Your task to perform on an android device: Empty the shopping cart on bestbuy.com. Add macbook pro 15 inch to the cart on bestbuy.com, then select checkout. Image 0: 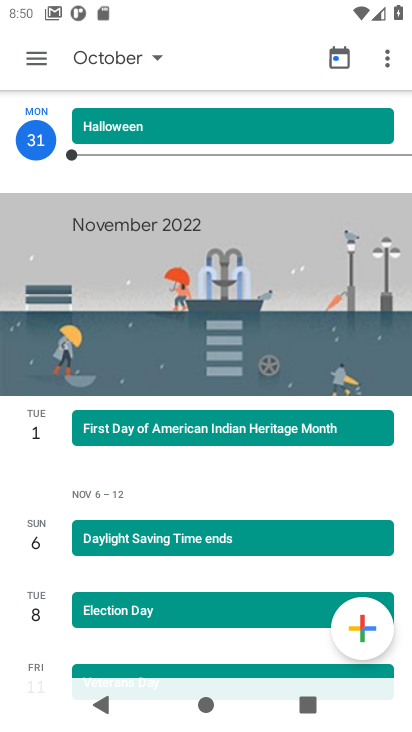
Step 0: press home button
Your task to perform on an android device: Empty the shopping cart on bestbuy.com. Add macbook pro 15 inch to the cart on bestbuy.com, then select checkout. Image 1: 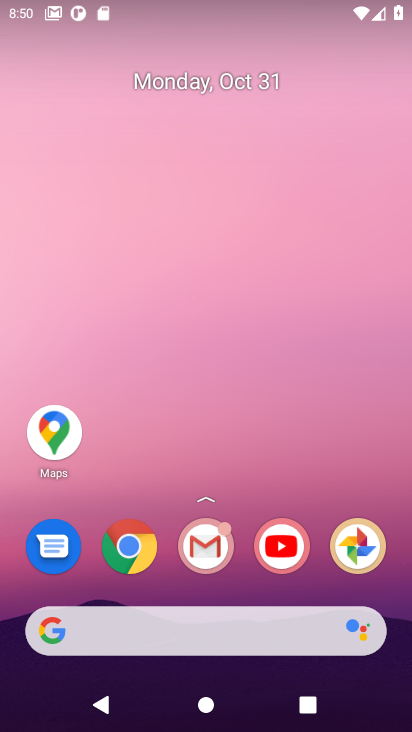
Step 1: drag from (167, 624) to (216, 70)
Your task to perform on an android device: Empty the shopping cart on bestbuy.com. Add macbook pro 15 inch to the cart on bestbuy.com, then select checkout. Image 2: 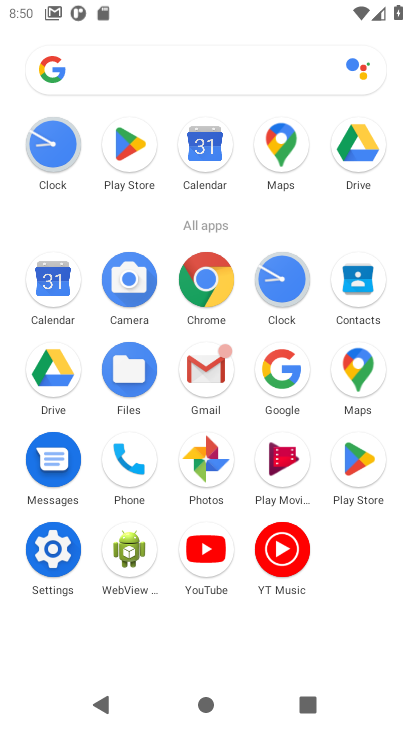
Step 2: click (221, 283)
Your task to perform on an android device: Empty the shopping cart on bestbuy.com. Add macbook pro 15 inch to the cart on bestbuy.com, then select checkout. Image 3: 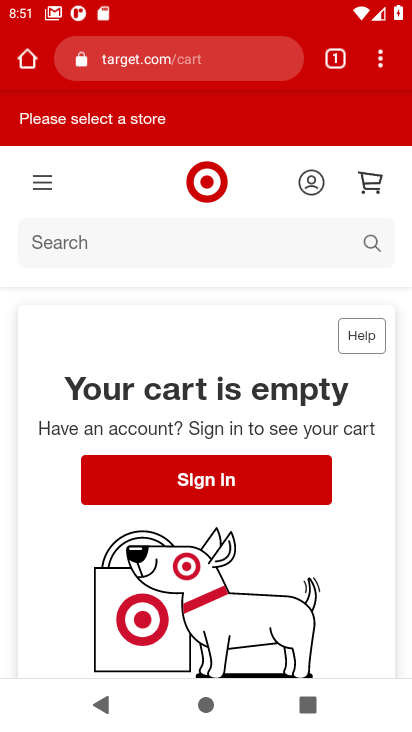
Step 3: click (158, 71)
Your task to perform on an android device: Empty the shopping cart on bestbuy.com. Add macbook pro 15 inch to the cart on bestbuy.com, then select checkout. Image 4: 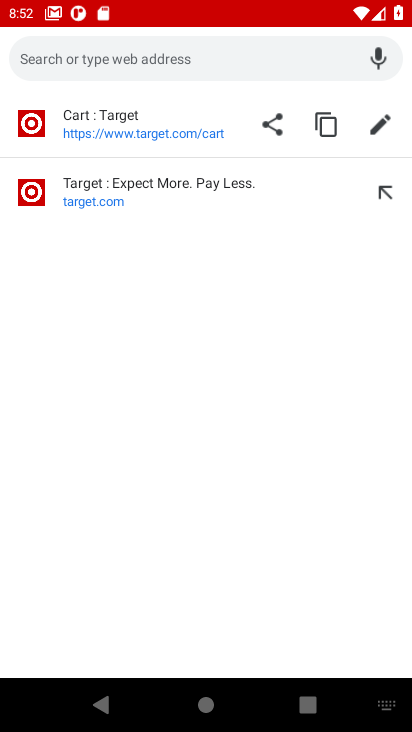
Step 4: type " bestbuy.com"
Your task to perform on an android device: Empty the shopping cart on bestbuy.com. Add macbook pro 15 inch to the cart on bestbuy.com, then select checkout. Image 5: 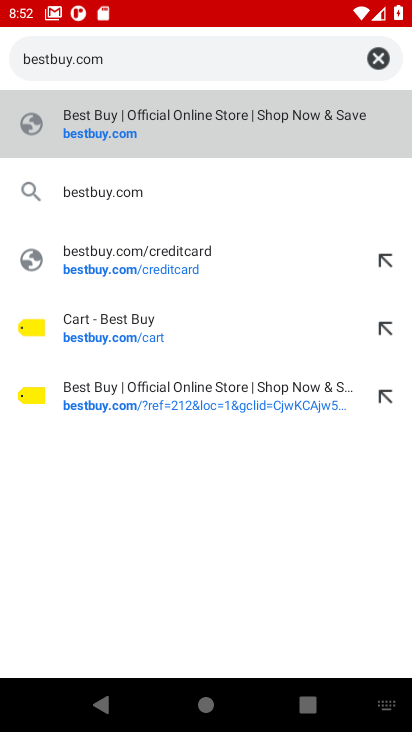
Step 5: press enter
Your task to perform on an android device: Empty the shopping cart on bestbuy.com. Add macbook pro 15 inch to the cart on bestbuy.com, then select checkout. Image 6: 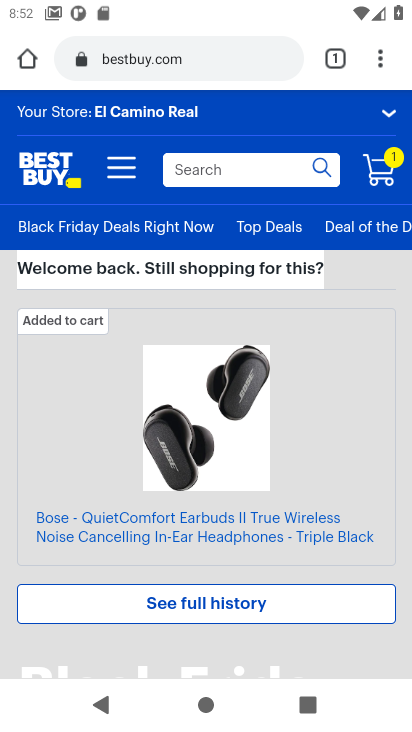
Step 6: click (387, 171)
Your task to perform on an android device: Empty the shopping cart on bestbuy.com. Add macbook pro 15 inch to the cart on bestbuy.com, then select checkout. Image 7: 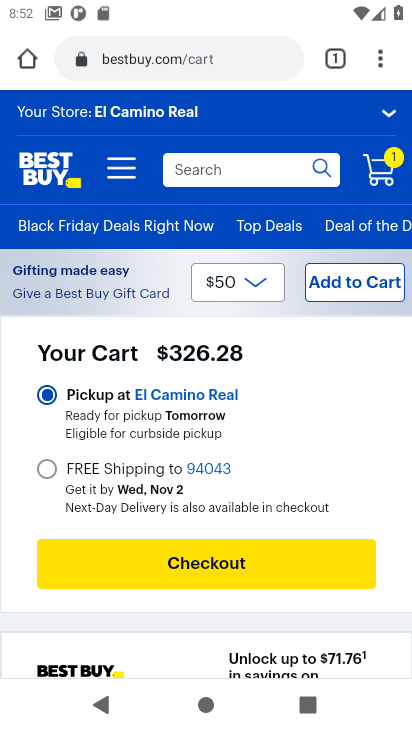
Step 7: drag from (344, 461) to (385, 349)
Your task to perform on an android device: Empty the shopping cart on bestbuy.com. Add macbook pro 15 inch to the cart on bestbuy.com, then select checkout. Image 8: 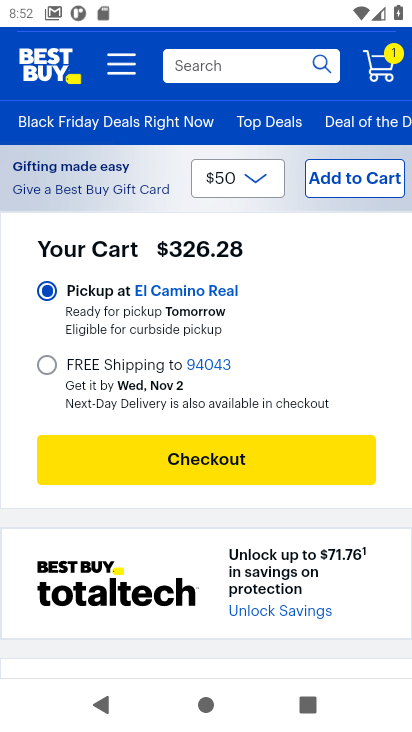
Step 8: drag from (325, 559) to (365, 295)
Your task to perform on an android device: Empty the shopping cart on bestbuy.com. Add macbook pro 15 inch to the cart on bestbuy.com, then select checkout. Image 9: 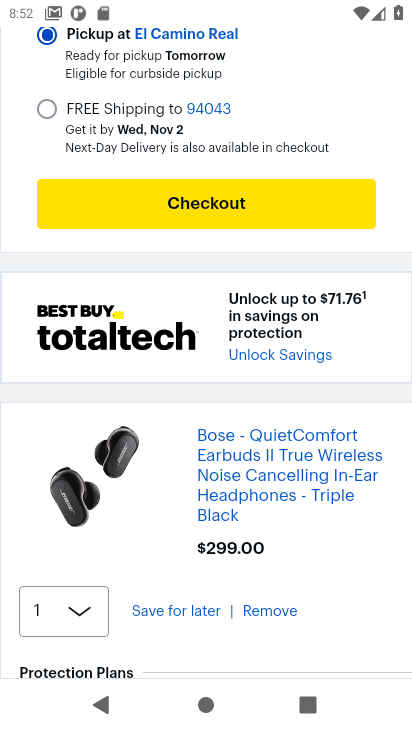
Step 9: drag from (352, 491) to (379, 263)
Your task to perform on an android device: Empty the shopping cart on bestbuy.com. Add macbook pro 15 inch to the cart on bestbuy.com, then select checkout. Image 10: 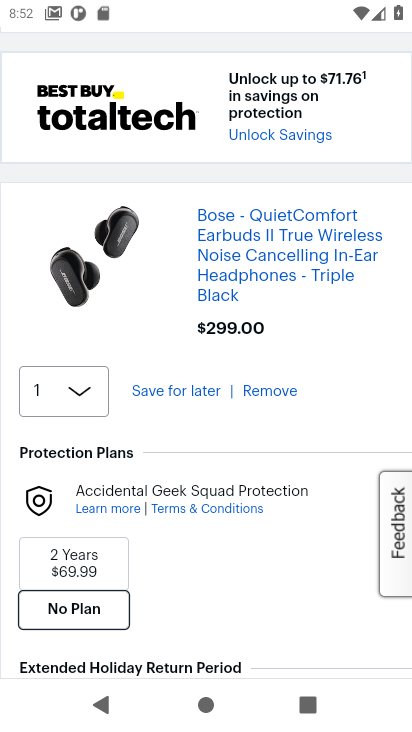
Step 10: click (263, 387)
Your task to perform on an android device: Empty the shopping cart on bestbuy.com. Add macbook pro 15 inch to the cart on bestbuy.com, then select checkout. Image 11: 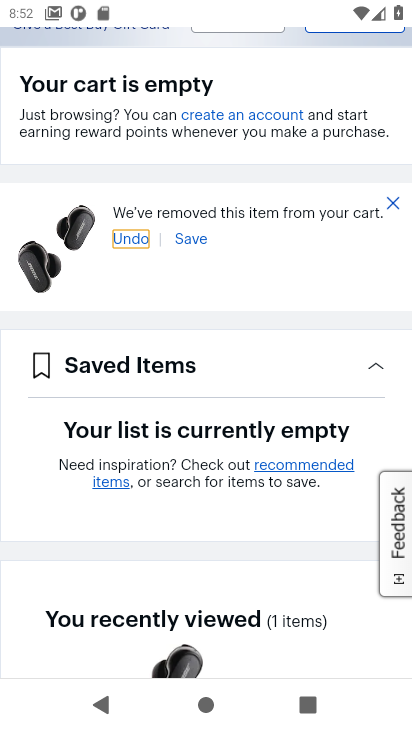
Step 11: drag from (276, 238) to (347, 442)
Your task to perform on an android device: Empty the shopping cart on bestbuy.com. Add macbook pro 15 inch to the cart on bestbuy.com, then select checkout. Image 12: 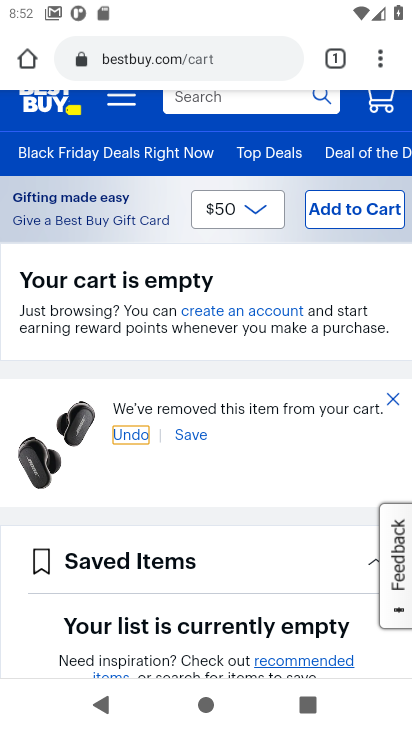
Step 12: drag from (288, 329) to (356, 529)
Your task to perform on an android device: Empty the shopping cart on bestbuy.com. Add macbook pro 15 inch to the cart on bestbuy.com, then select checkout. Image 13: 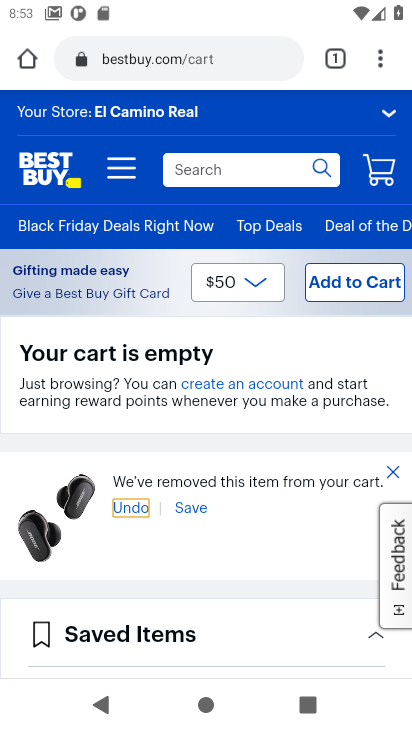
Step 13: click (198, 186)
Your task to perform on an android device: Empty the shopping cart on bestbuy.com. Add macbook pro 15 inch to the cart on bestbuy.com, then select checkout. Image 14: 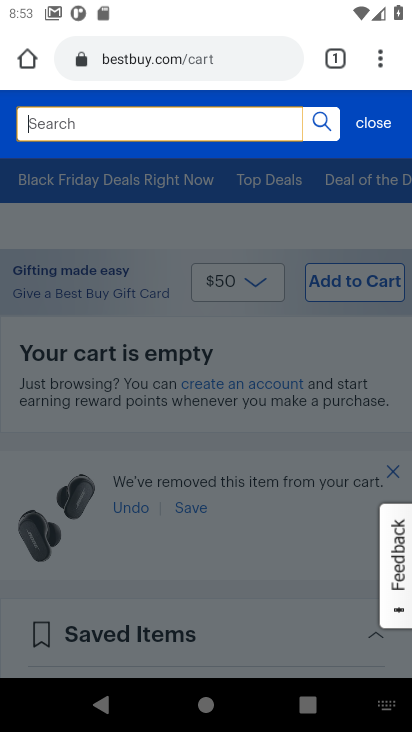
Step 14: type "macbook pro 15 inch "
Your task to perform on an android device: Empty the shopping cart on bestbuy.com. Add macbook pro 15 inch to the cart on bestbuy.com, then select checkout. Image 15: 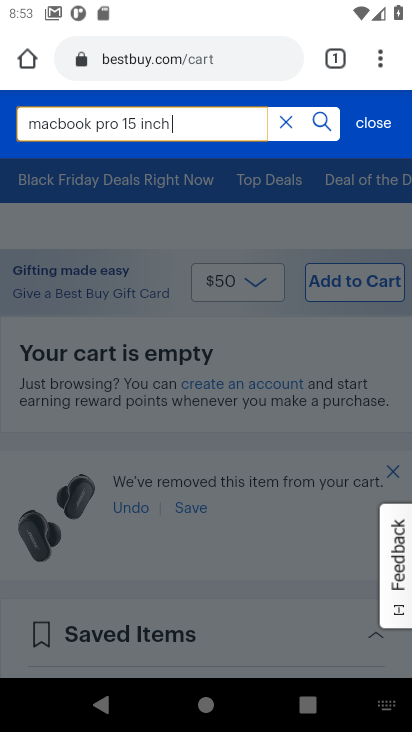
Step 15: press enter
Your task to perform on an android device: Empty the shopping cart on bestbuy.com. Add macbook pro 15 inch to the cart on bestbuy.com, then select checkout. Image 16: 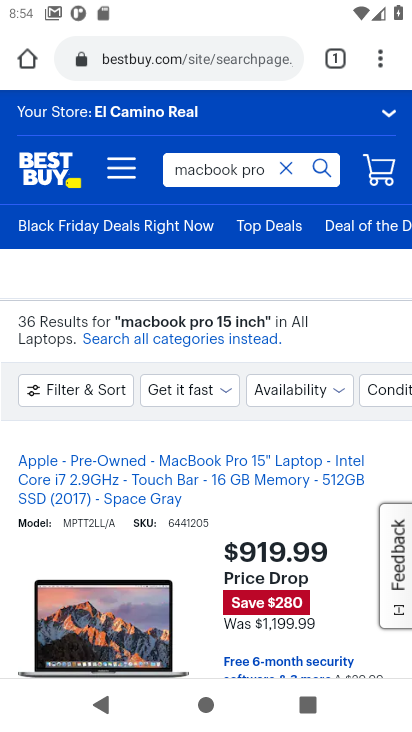
Step 16: drag from (121, 617) to (43, 330)
Your task to perform on an android device: Empty the shopping cart on bestbuy.com. Add macbook pro 15 inch to the cart on bestbuy.com, then select checkout. Image 17: 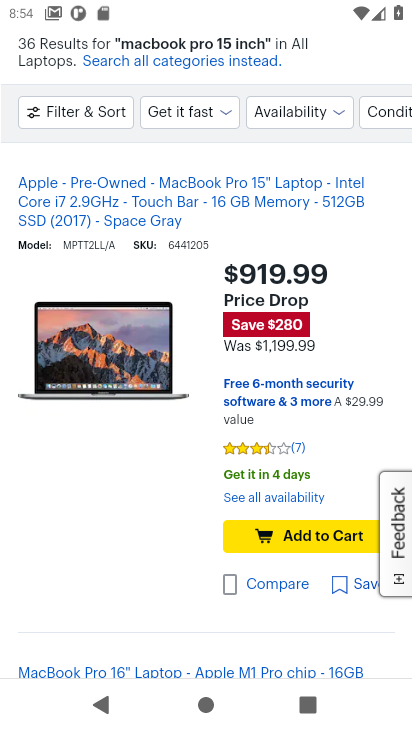
Step 17: click (293, 536)
Your task to perform on an android device: Empty the shopping cart on bestbuy.com. Add macbook pro 15 inch to the cart on bestbuy.com, then select checkout. Image 18: 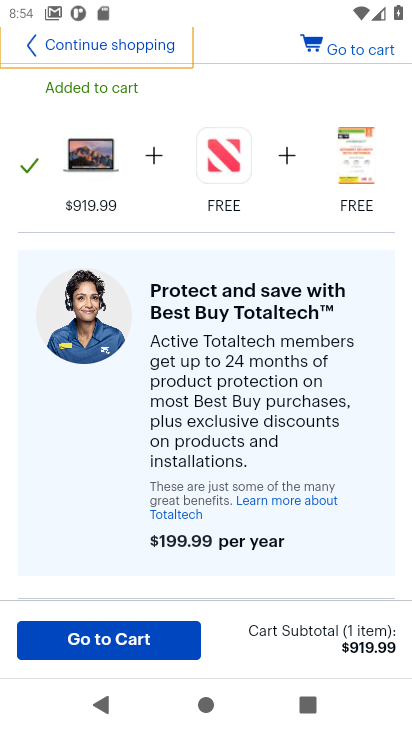
Step 18: drag from (241, 552) to (170, 367)
Your task to perform on an android device: Empty the shopping cart on bestbuy.com. Add macbook pro 15 inch to the cart on bestbuy.com, then select checkout. Image 19: 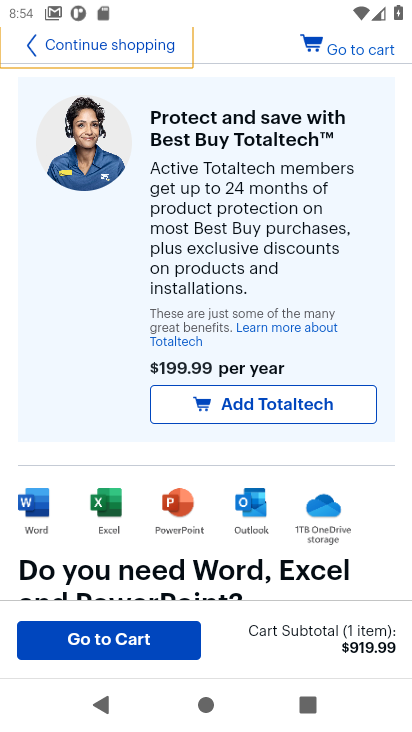
Step 19: click (170, 644)
Your task to perform on an android device: Empty the shopping cart on bestbuy.com. Add macbook pro 15 inch to the cart on bestbuy.com, then select checkout. Image 20: 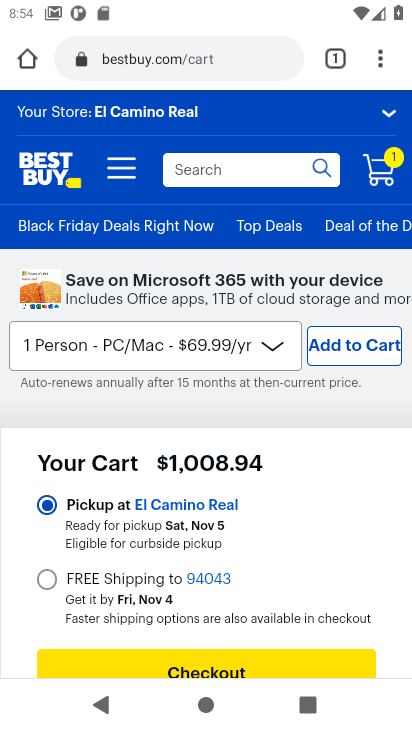
Step 20: click (186, 662)
Your task to perform on an android device: Empty the shopping cart on bestbuy.com. Add macbook pro 15 inch to the cart on bestbuy.com, then select checkout. Image 21: 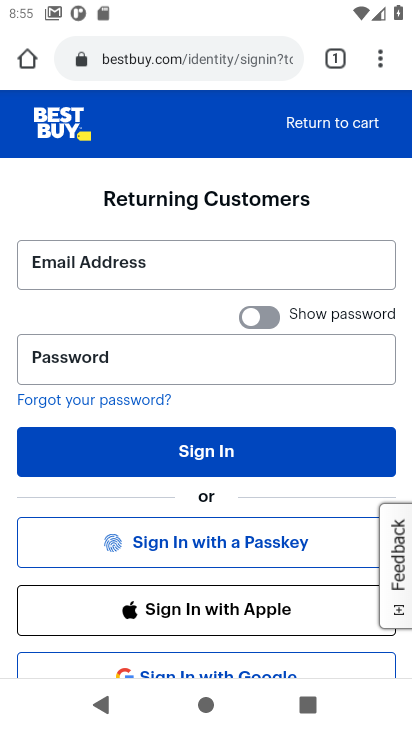
Step 21: task complete